Your task to perform on an android device: Set the phone to "Do not disturb". Image 0: 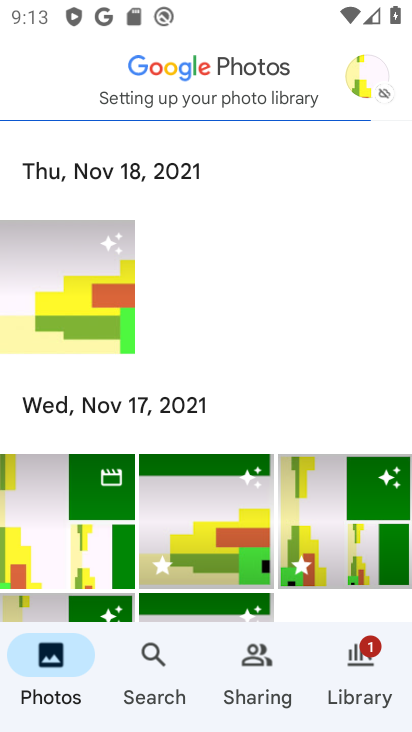
Step 0: press home button
Your task to perform on an android device: Set the phone to "Do not disturb". Image 1: 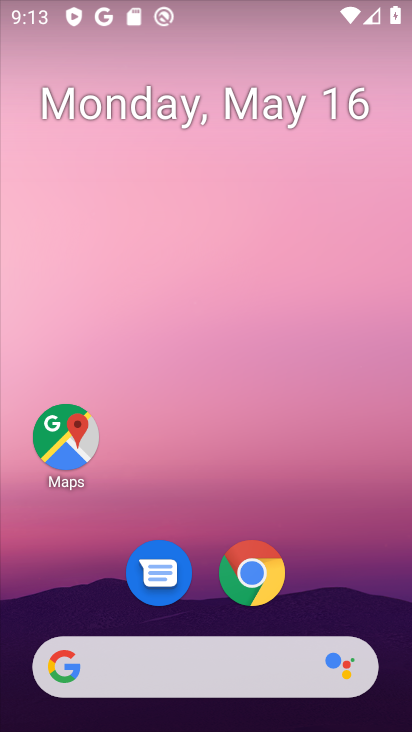
Step 1: drag from (270, 13) to (235, 604)
Your task to perform on an android device: Set the phone to "Do not disturb". Image 2: 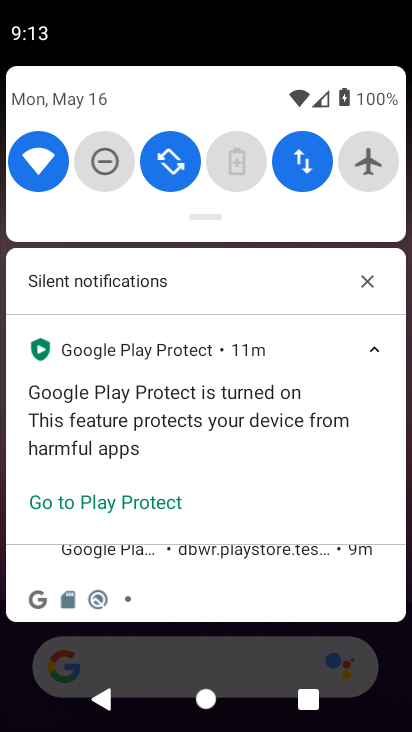
Step 2: click (102, 152)
Your task to perform on an android device: Set the phone to "Do not disturb". Image 3: 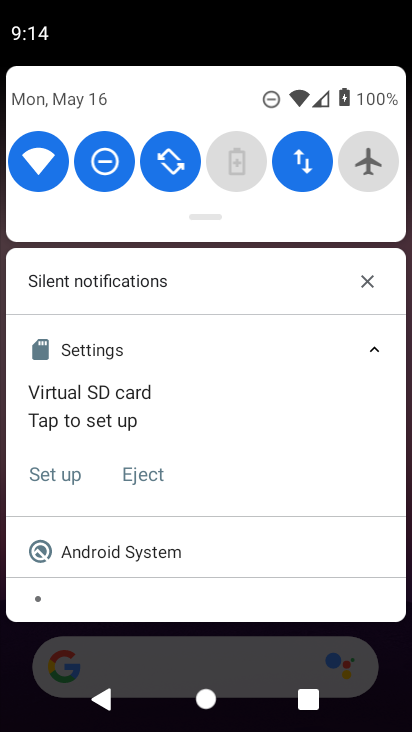
Step 3: task complete